Your task to perform on an android device: check android version Image 0: 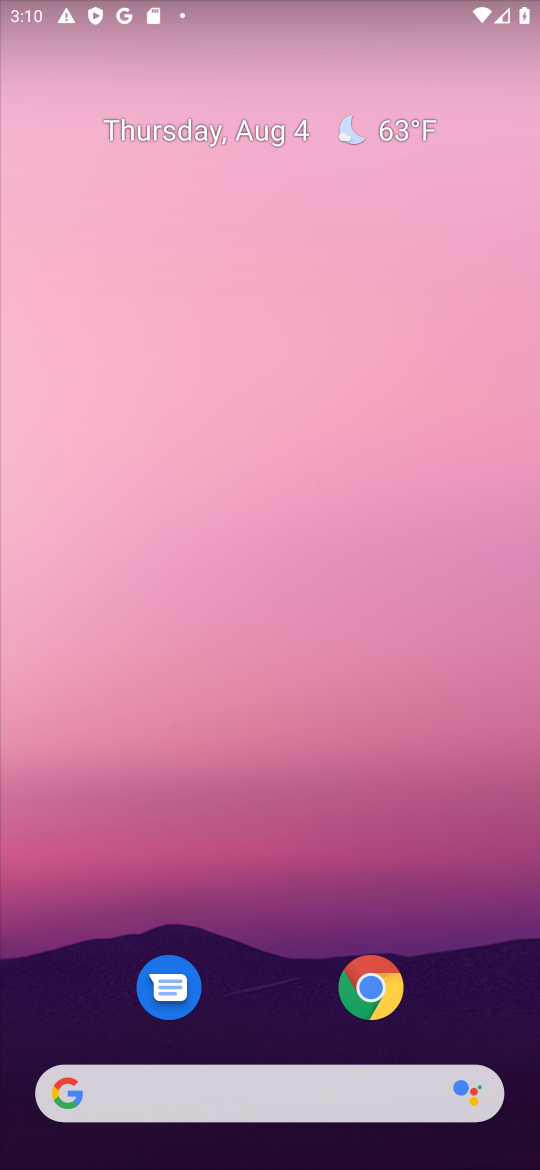
Step 0: drag from (249, 771) to (319, 160)
Your task to perform on an android device: check android version Image 1: 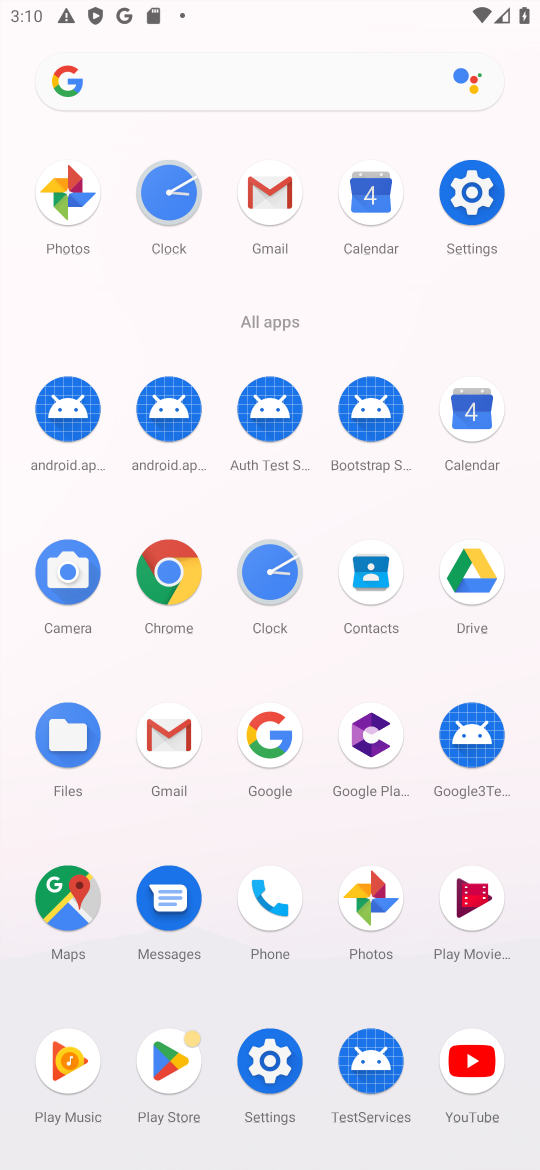
Step 1: click (469, 193)
Your task to perform on an android device: check android version Image 2: 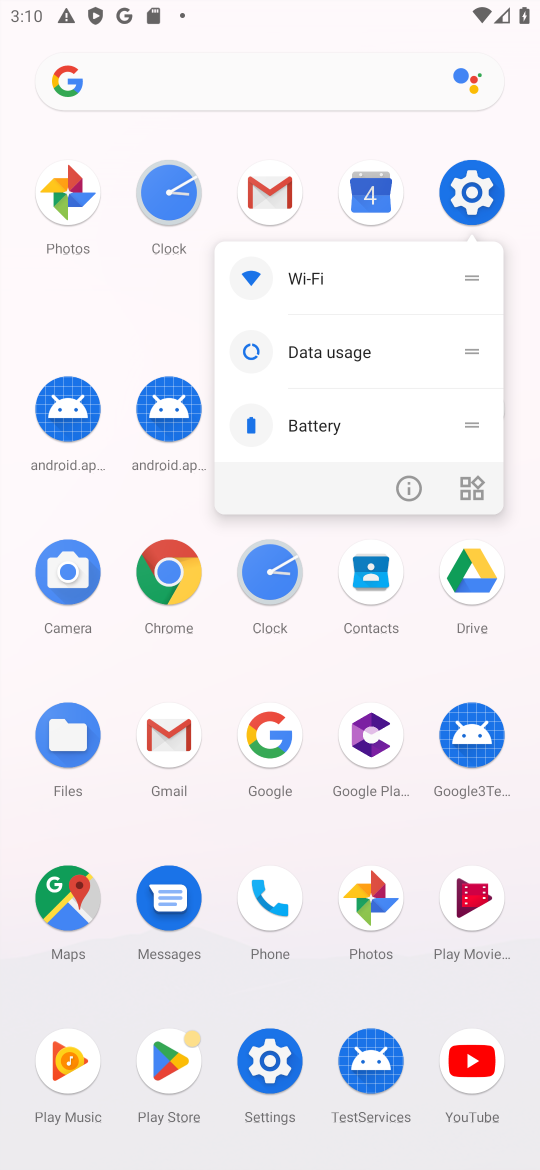
Step 2: click (460, 193)
Your task to perform on an android device: check android version Image 3: 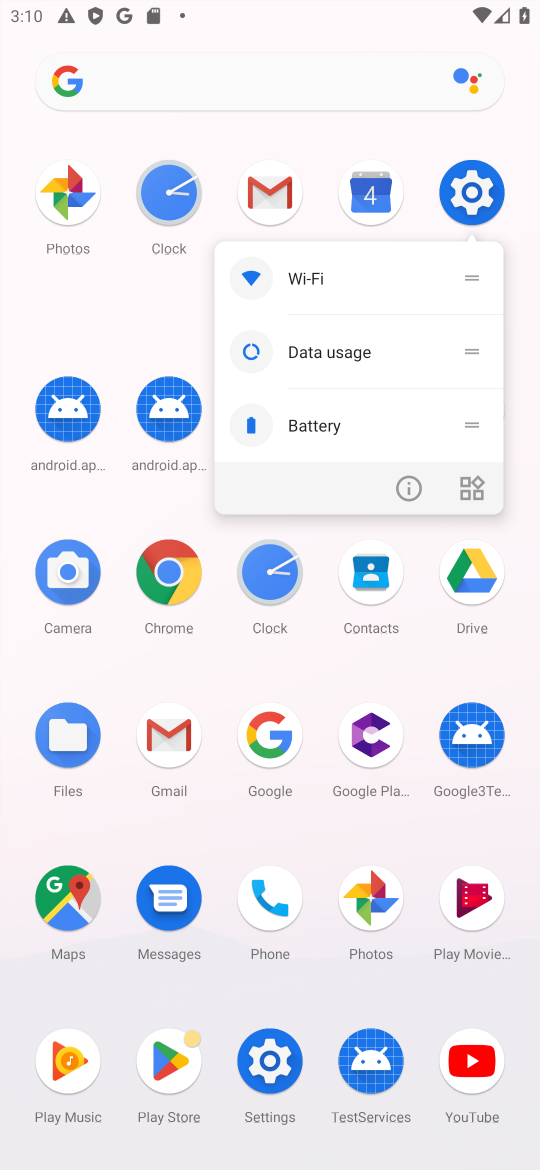
Step 3: click (472, 197)
Your task to perform on an android device: check android version Image 4: 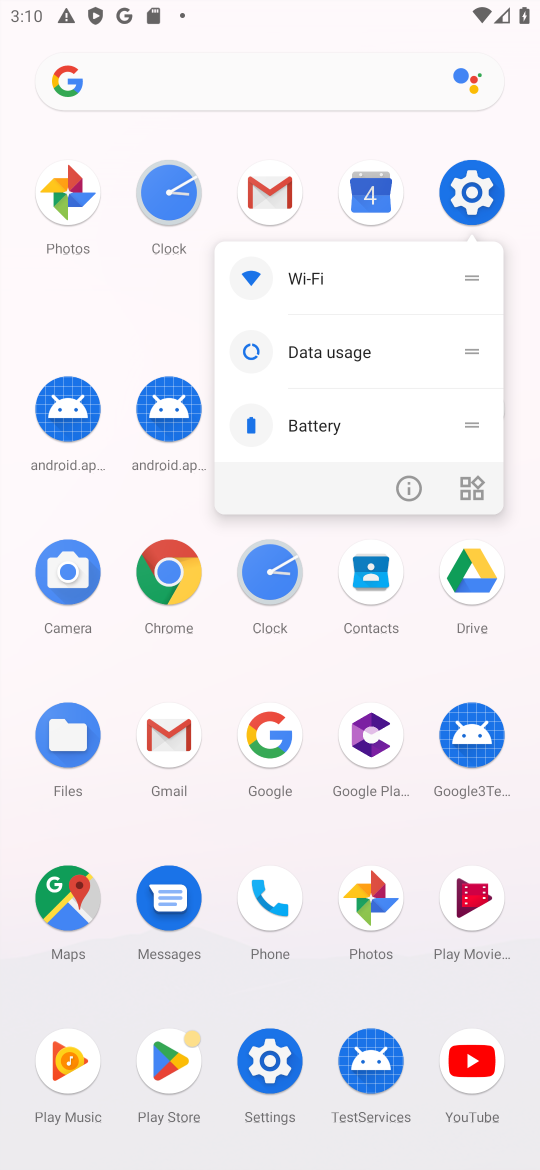
Step 4: click (472, 211)
Your task to perform on an android device: check android version Image 5: 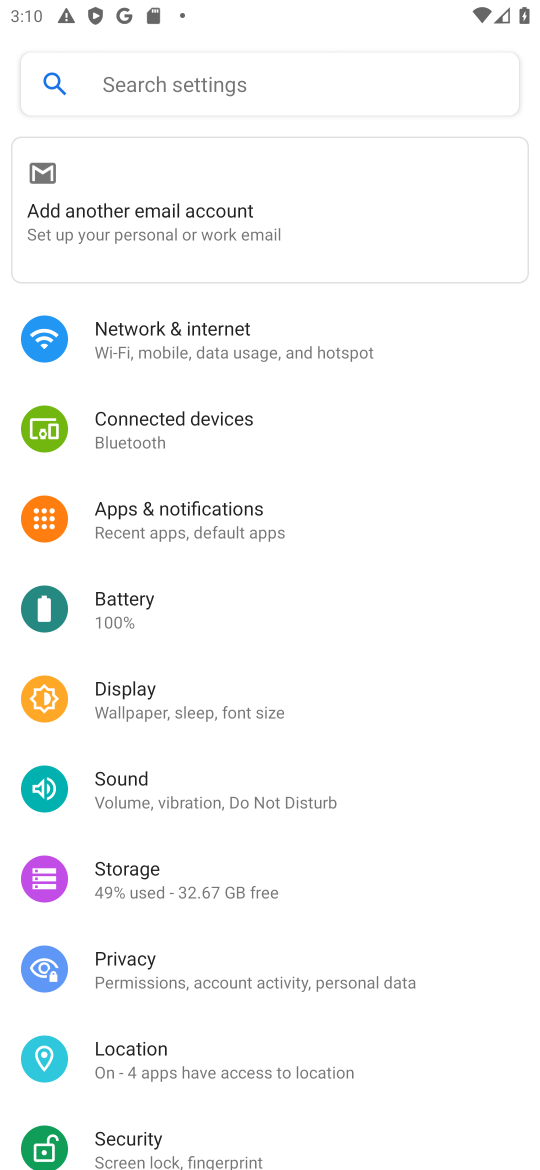
Step 5: drag from (191, 922) to (221, 532)
Your task to perform on an android device: check android version Image 6: 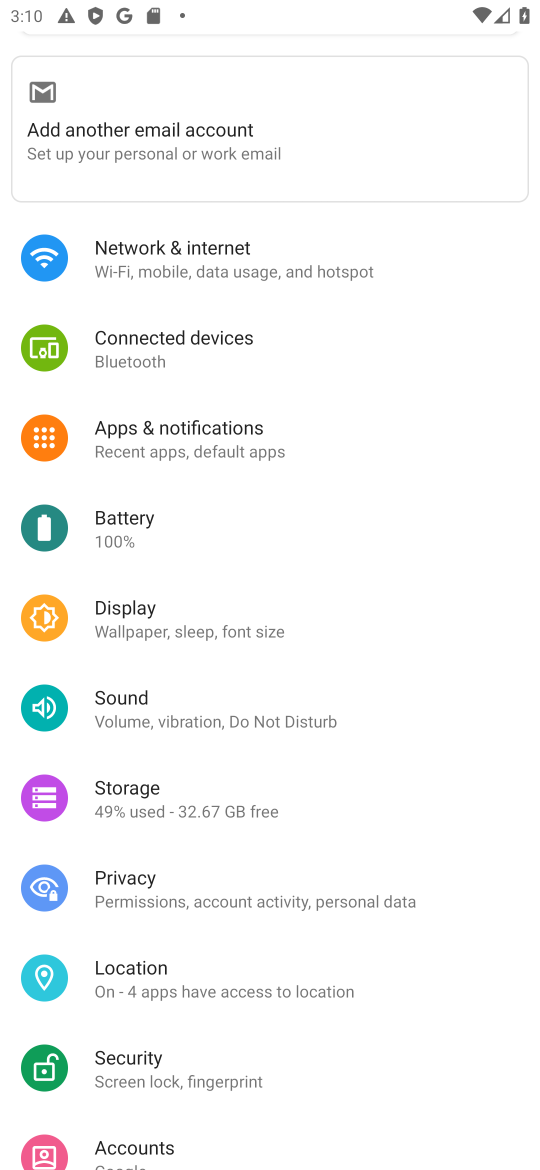
Step 6: drag from (181, 989) to (231, 472)
Your task to perform on an android device: check android version Image 7: 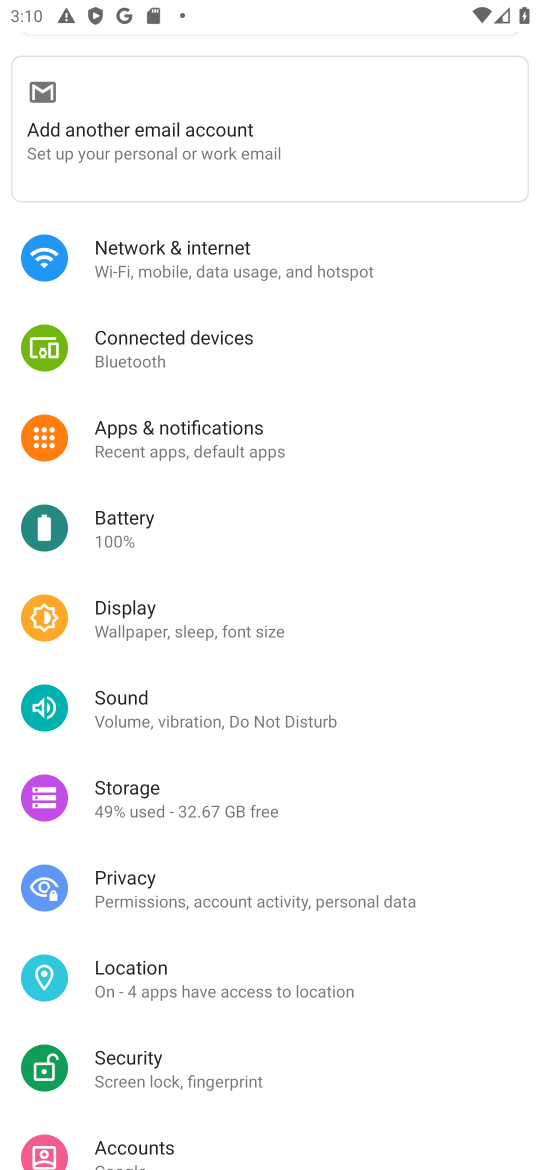
Step 7: drag from (147, 1069) to (254, 476)
Your task to perform on an android device: check android version Image 8: 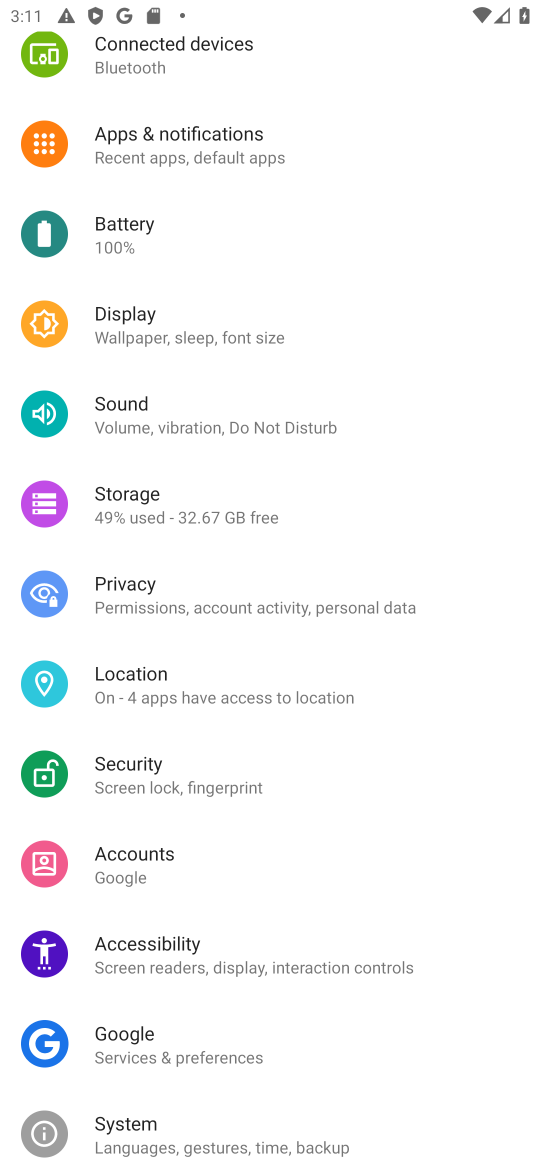
Step 8: drag from (194, 1048) to (219, 574)
Your task to perform on an android device: check android version Image 9: 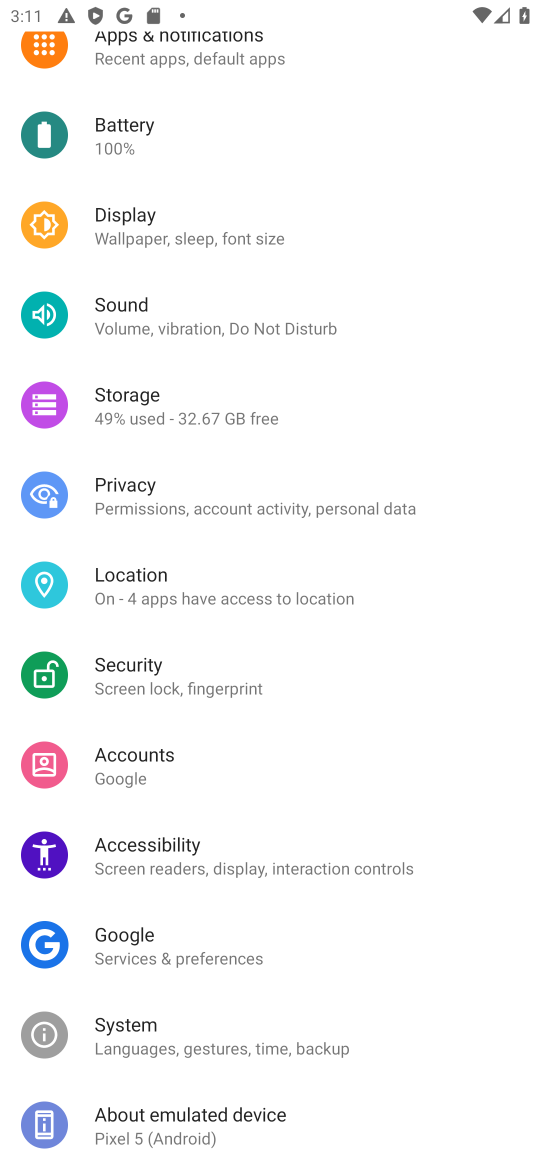
Step 9: click (184, 1134)
Your task to perform on an android device: check android version Image 10: 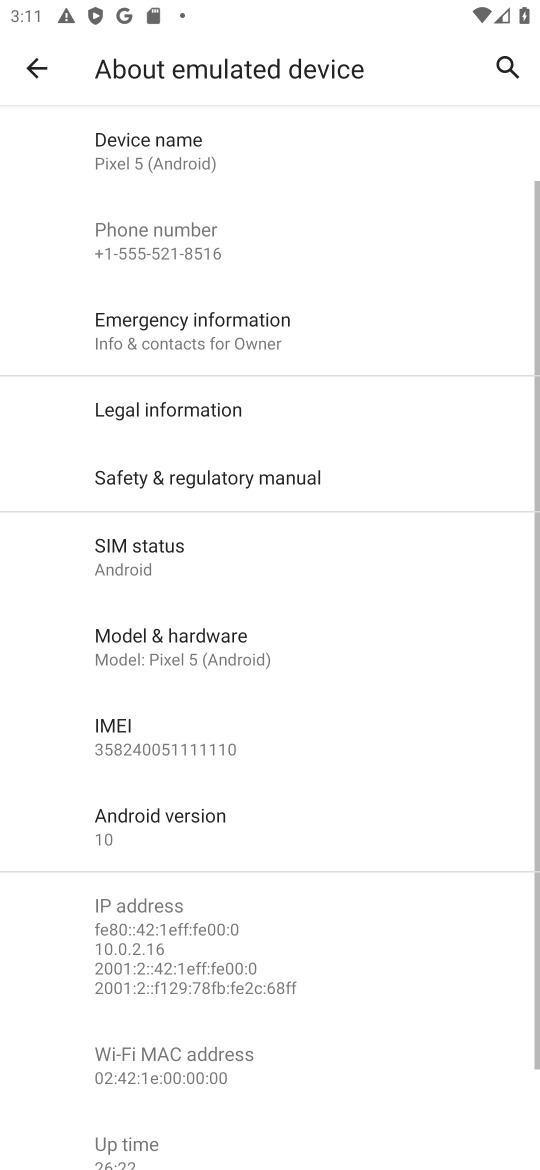
Step 10: click (132, 844)
Your task to perform on an android device: check android version Image 11: 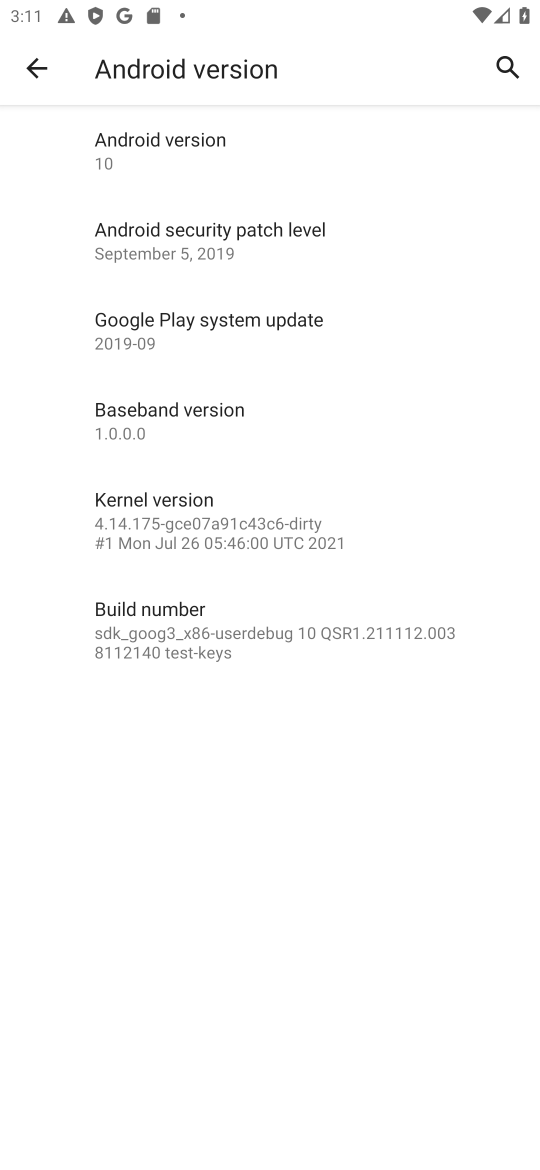
Step 11: task complete